Your task to perform on an android device: Empty the shopping cart on newegg. Search for "sony triple a" on newegg, select the first entry, add it to the cart, then select checkout. Image 0: 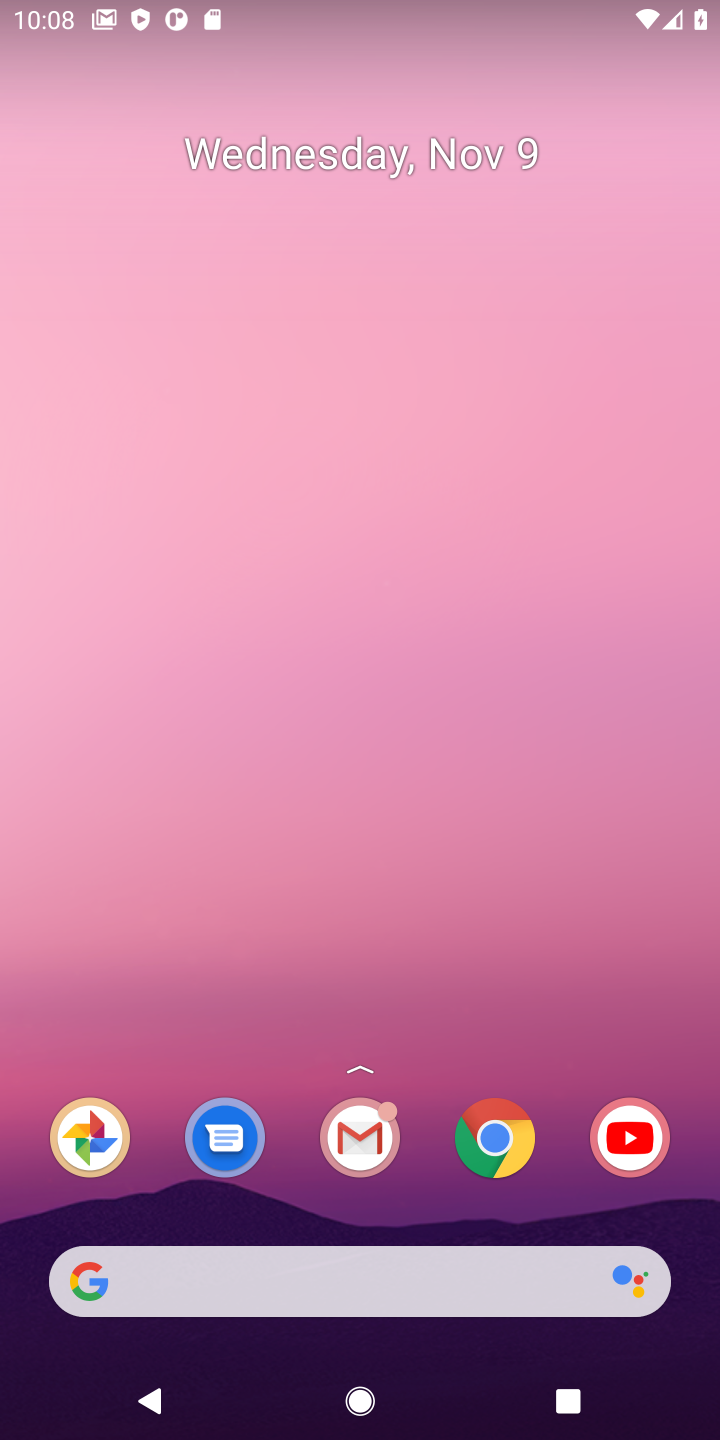
Step 0: drag from (435, 1236) to (587, 4)
Your task to perform on an android device: Empty the shopping cart on newegg. Search for "sony triple a" on newegg, select the first entry, add it to the cart, then select checkout. Image 1: 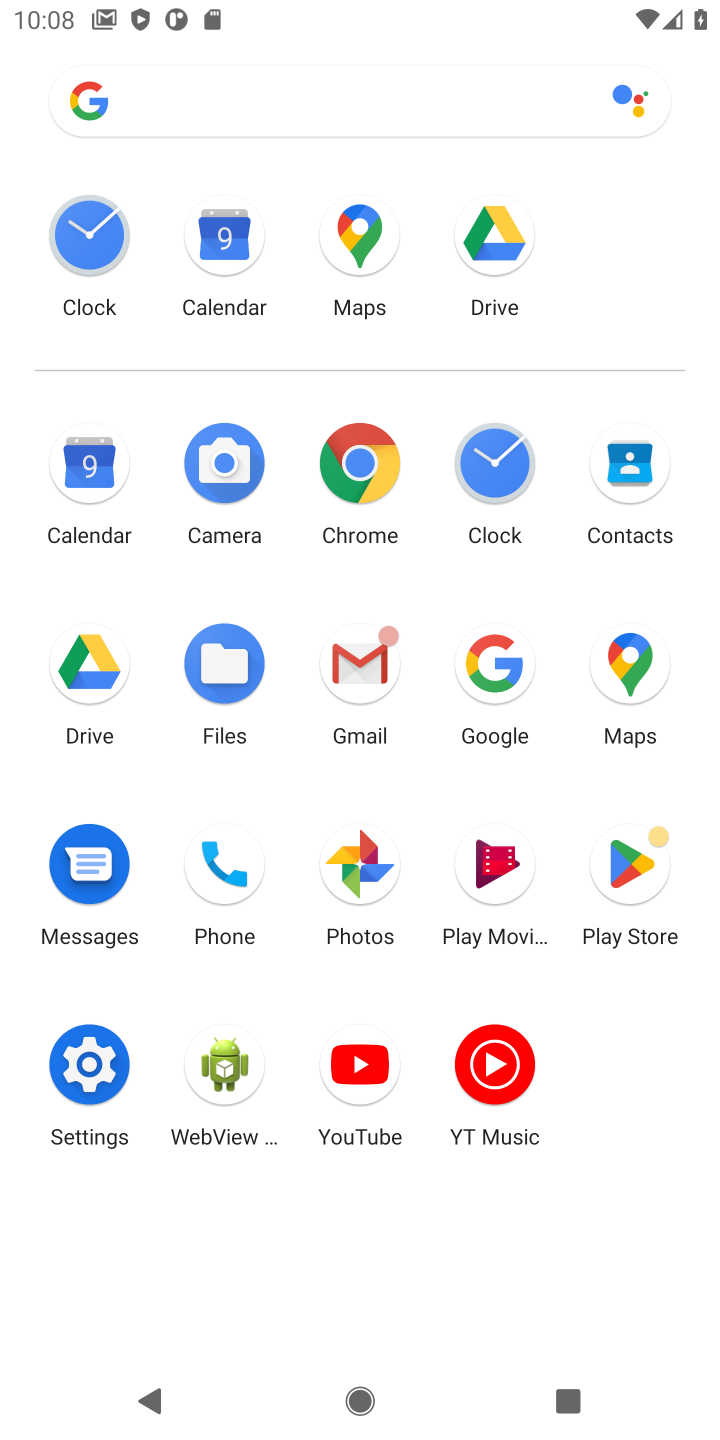
Step 1: click (357, 459)
Your task to perform on an android device: Empty the shopping cart on newegg. Search for "sony triple a" on newegg, select the first entry, add it to the cart, then select checkout. Image 2: 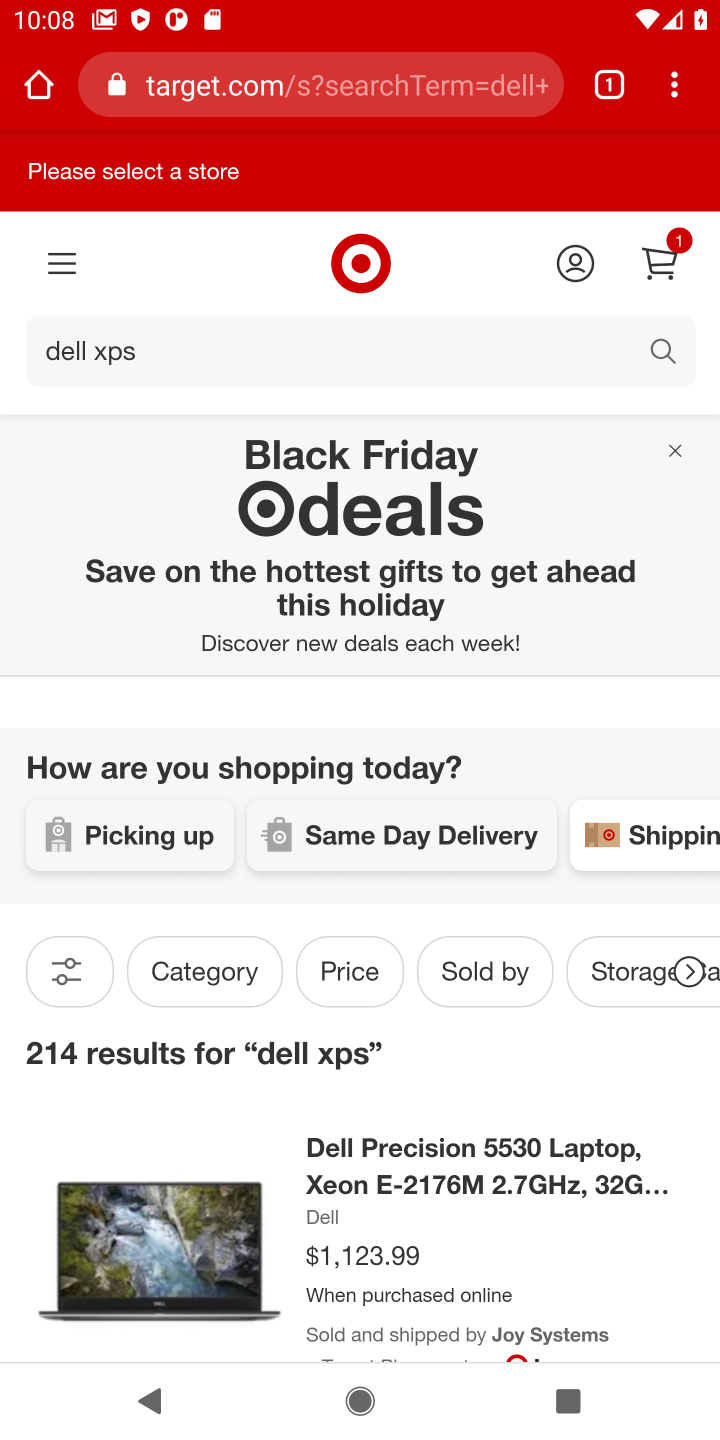
Step 2: click (291, 75)
Your task to perform on an android device: Empty the shopping cart on newegg. Search for "sony triple a" on newegg, select the first entry, add it to the cart, then select checkout. Image 3: 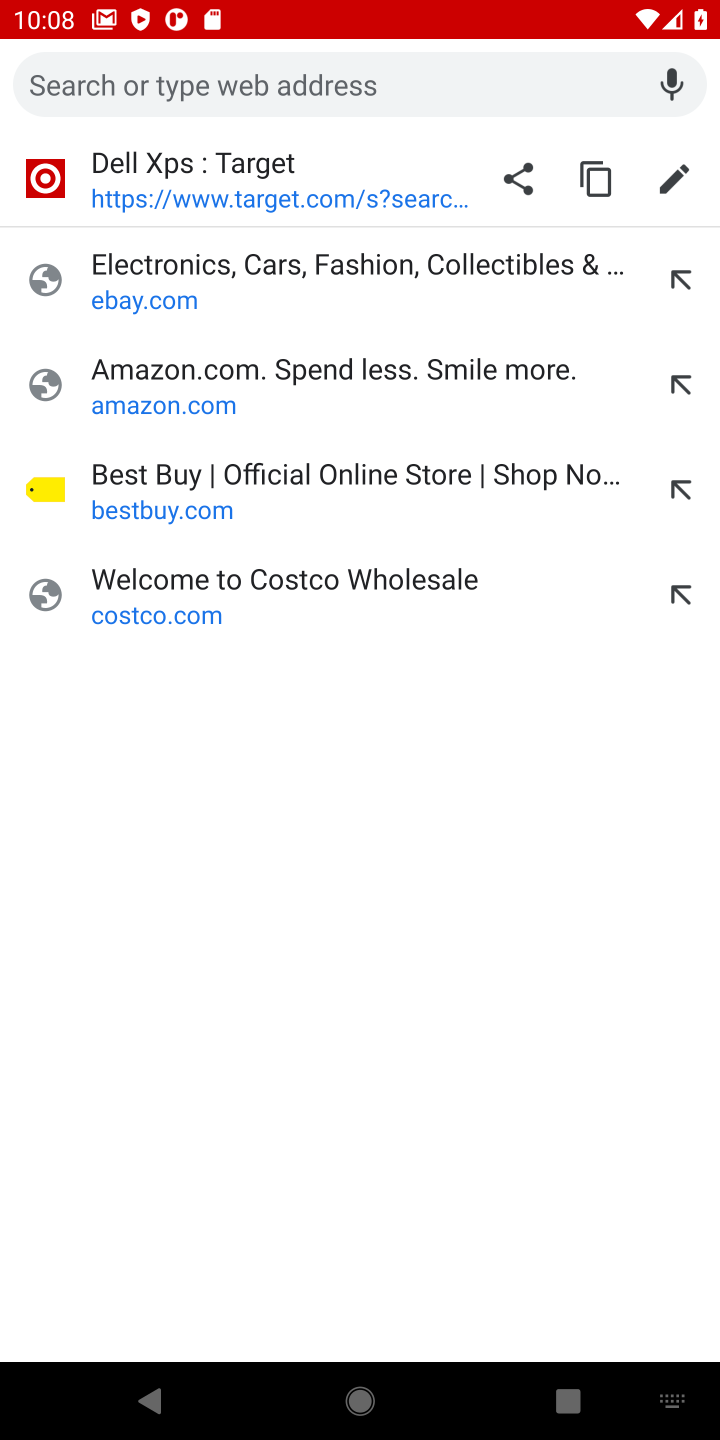
Step 3: type "newegg.com"
Your task to perform on an android device: Empty the shopping cart on newegg. Search for "sony triple a" on newegg, select the first entry, add it to the cart, then select checkout. Image 4: 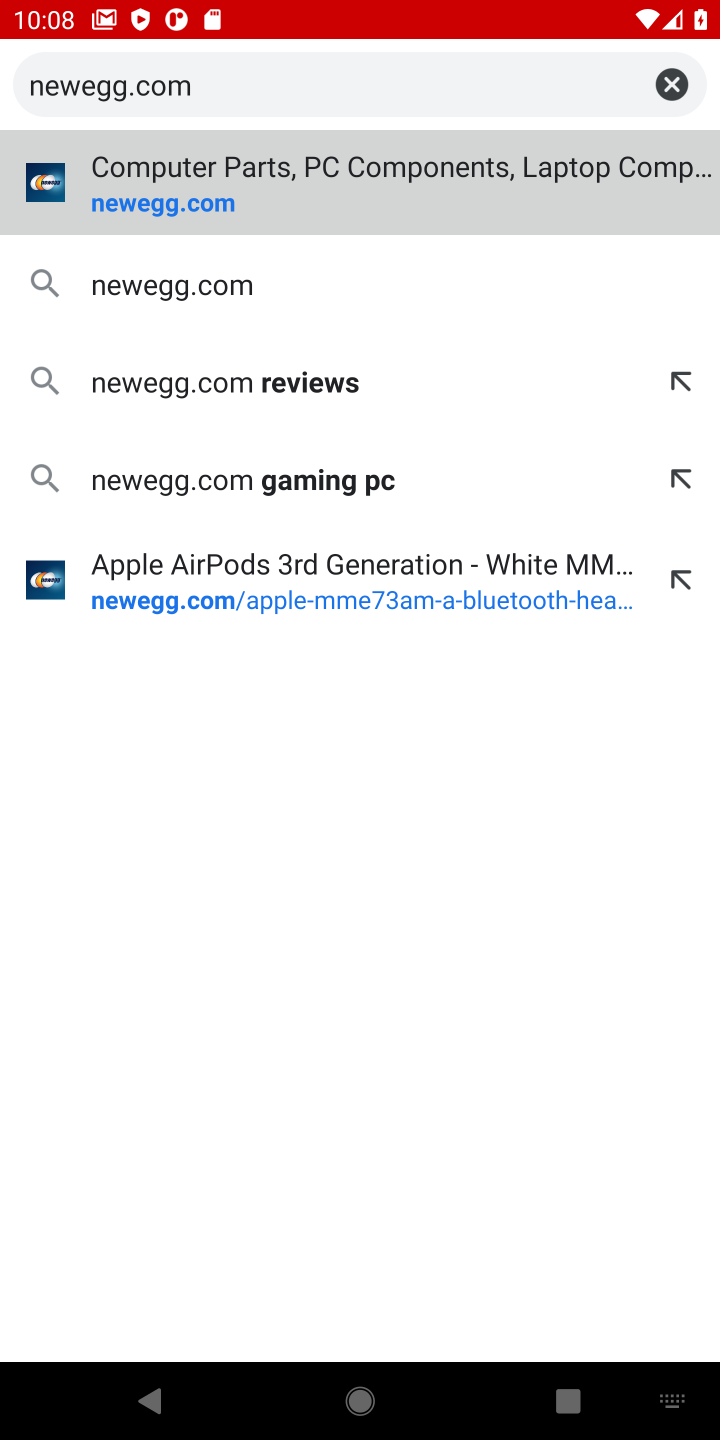
Step 4: press enter
Your task to perform on an android device: Empty the shopping cart on newegg. Search for "sony triple a" on newegg, select the first entry, add it to the cart, then select checkout. Image 5: 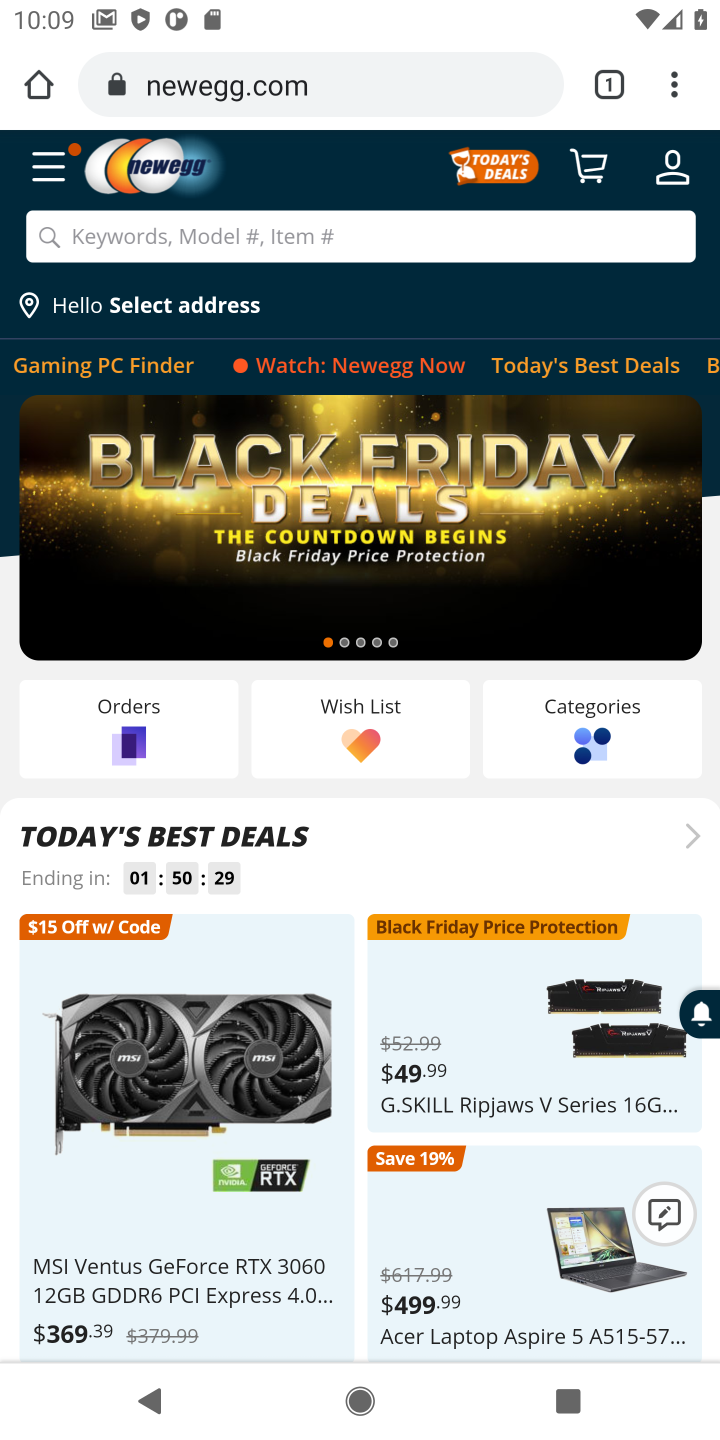
Step 5: click (592, 180)
Your task to perform on an android device: Empty the shopping cart on newegg. Search for "sony triple a" on newegg, select the first entry, add it to the cart, then select checkout. Image 6: 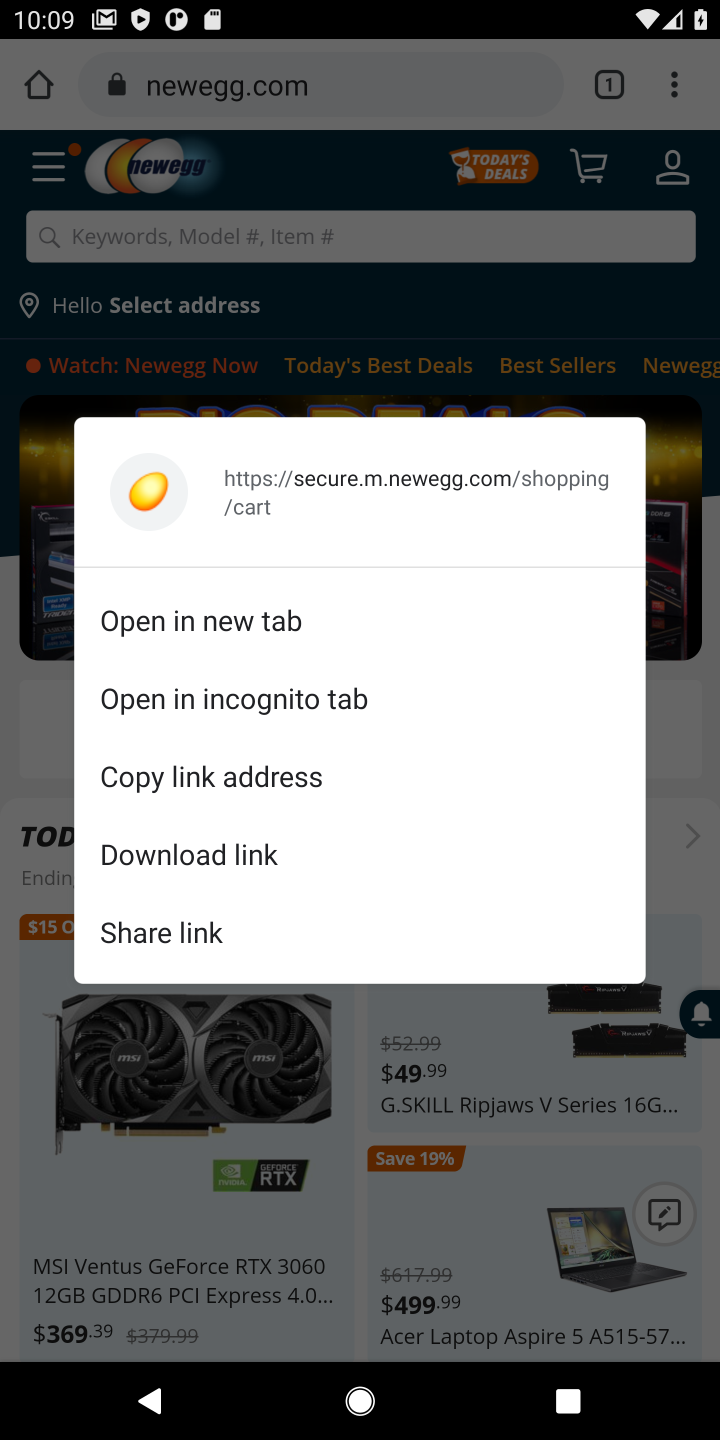
Step 6: click (593, 167)
Your task to perform on an android device: Empty the shopping cart on newegg. Search for "sony triple a" on newegg, select the first entry, add it to the cart, then select checkout. Image 7: 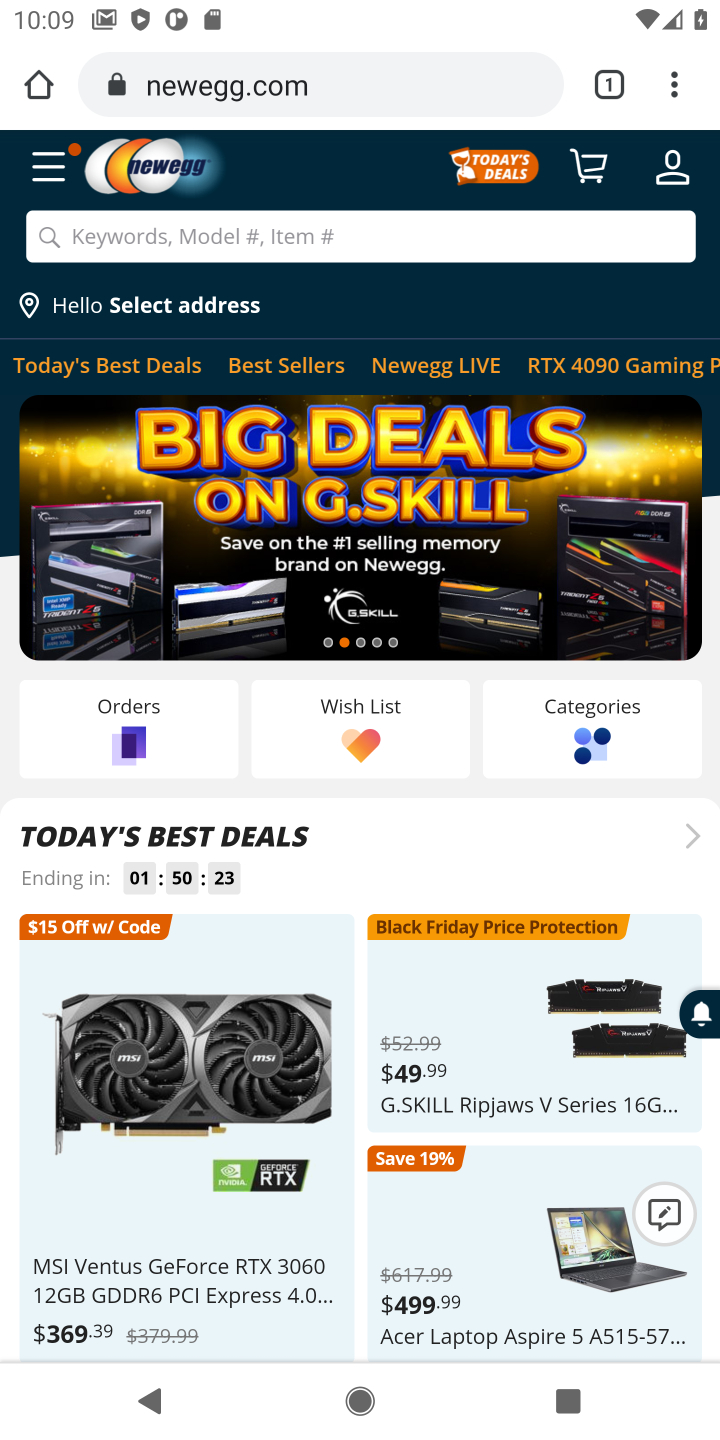
Step 7: click (593, 167)
Your task to perform on an android device: Empty the shopping cart on newegg. Search for "sony triple a" on newegg, select the first entry, add it to the cart, then select checkout. Image 8: 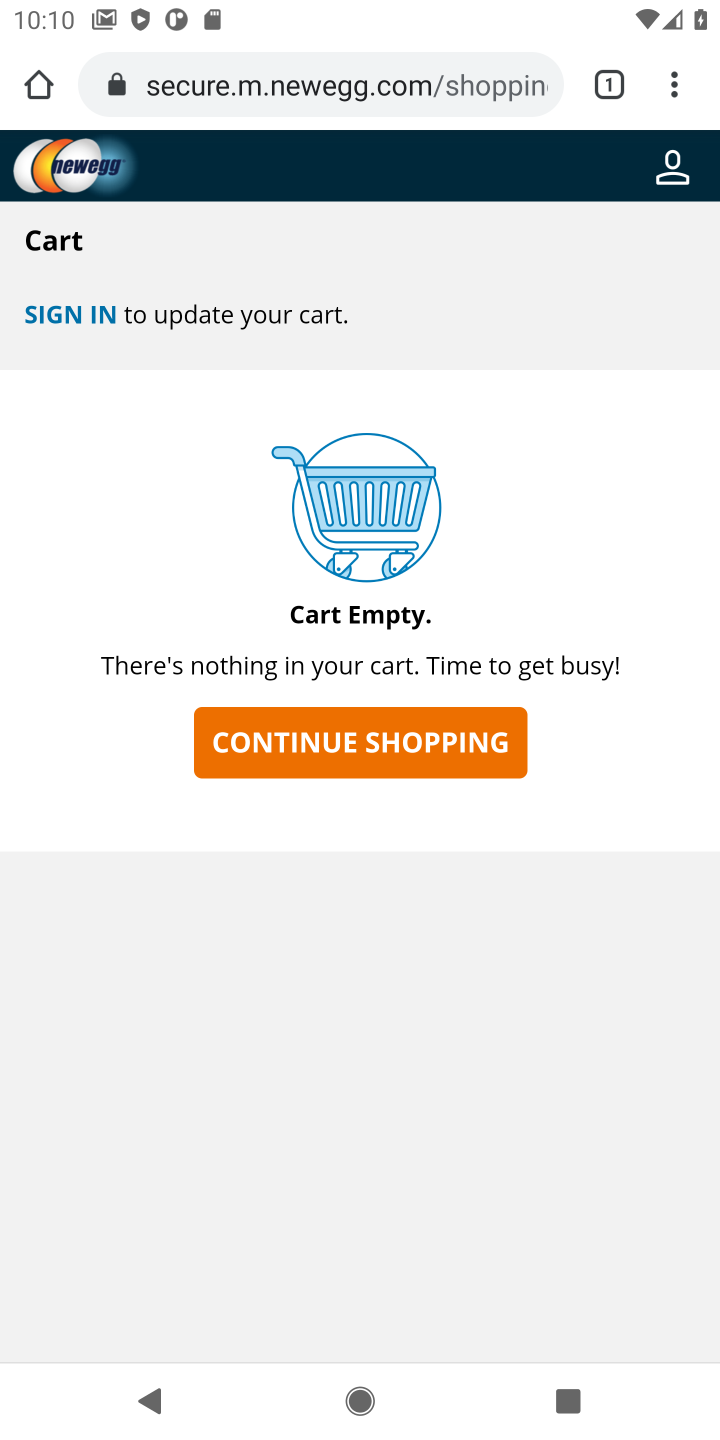
Step 8: click (372, 745)
Your task to perform on an android device: Empty the shopping cart on newegg. Search for "sony triple a" on newegg, select the first entry, add it to the cart, then select checkout. Image 9: 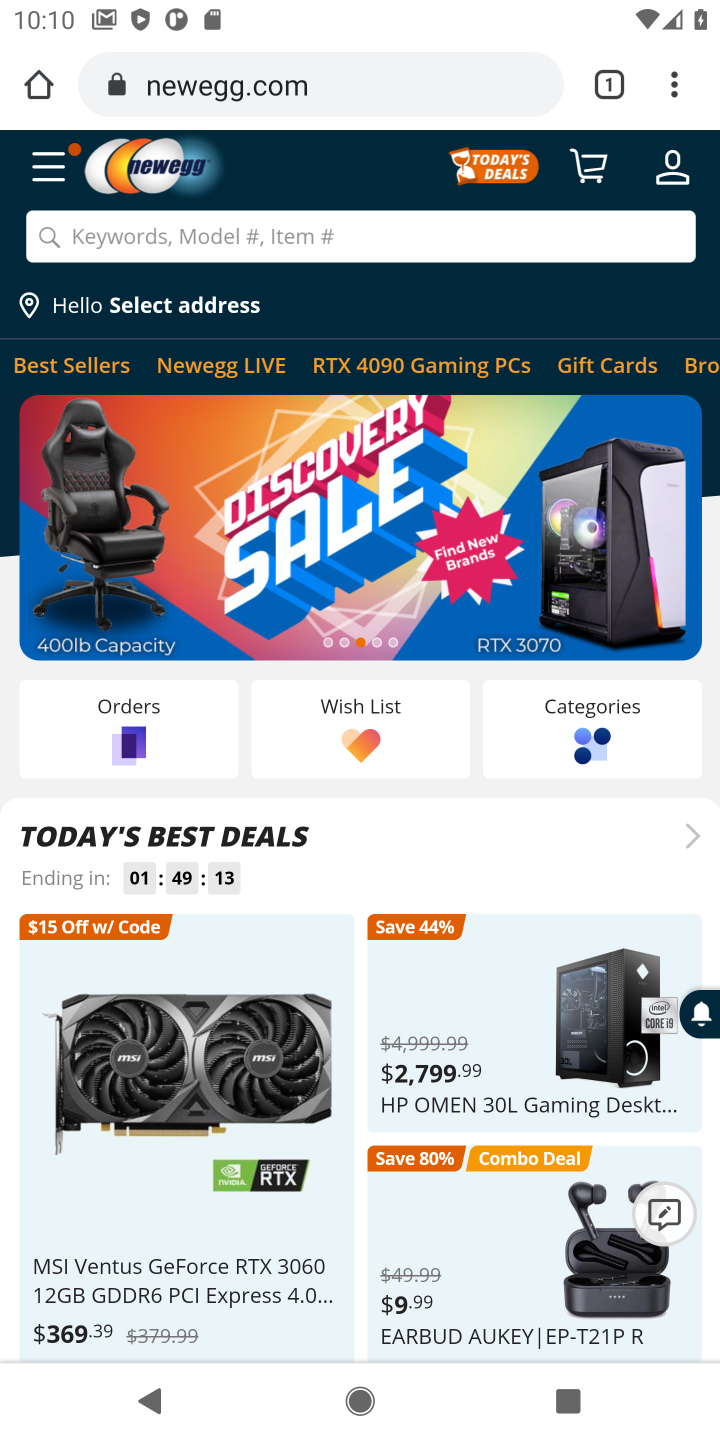
Step 9: click (607, 182)
Your task to perform on an android device: Empty the shopping cart on newegg. Search for "sony triple a" on newegg, select the first entry, add it to the cart, then select checkout. Image 10: 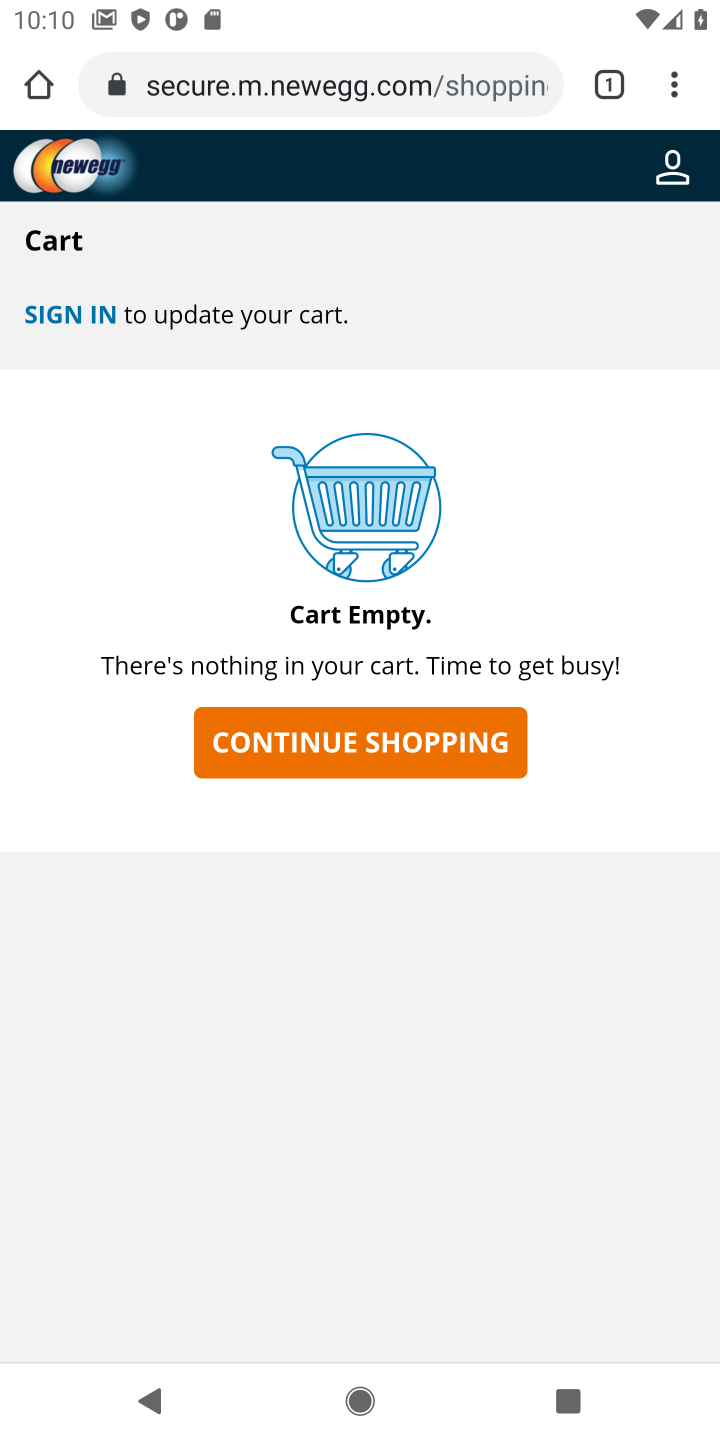
Step 10: click (395, 761)
Your task to perform on an android device: Empty the shopping cart on newegg. Search for "sony triple a" on newegg, select the first entry, add it to the cart, then select checkout. Image 11: 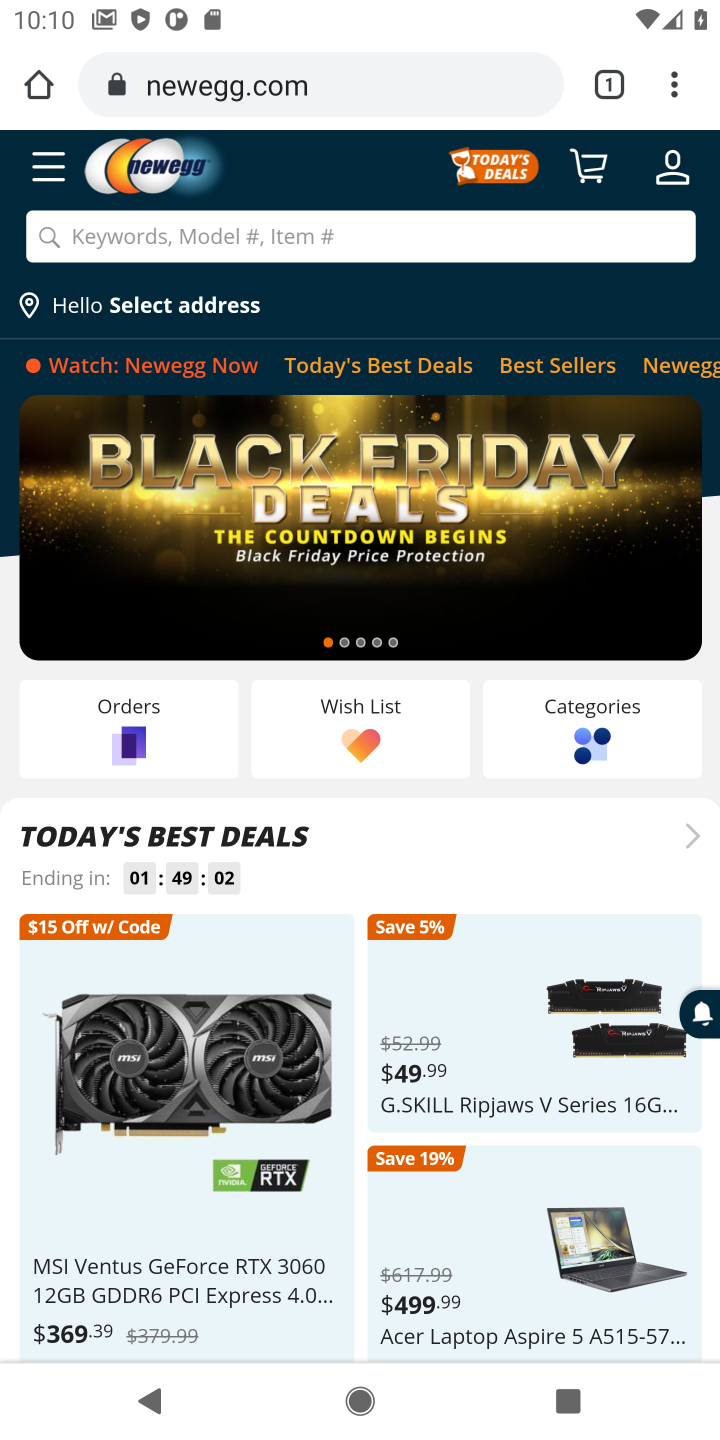
Step 11: click (387, 224)
Your task to perform on an android device: Empty the shopping cart on newegg. Search for "sony triple a" on newegg, select the first entry, add it to the cart, then select checkout. Image 12: 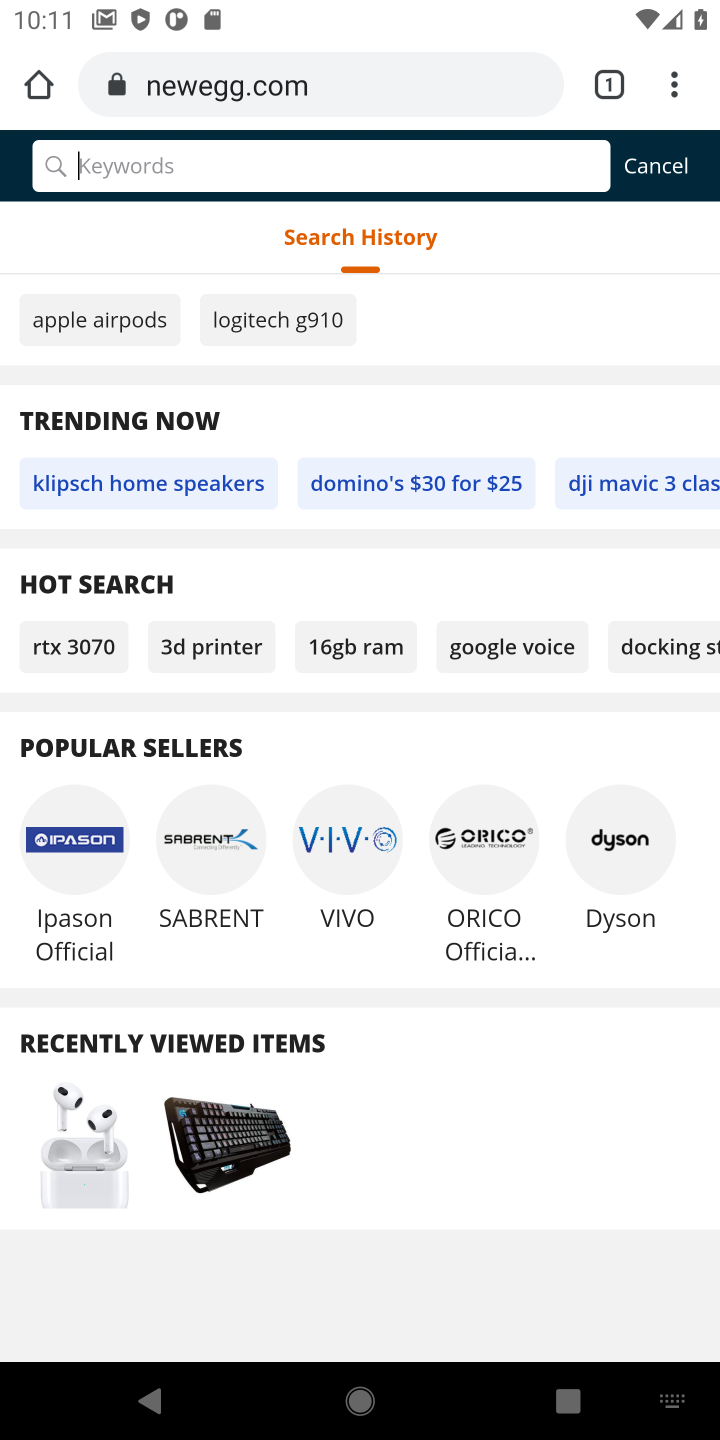
Step 12: click (458, 224)
Your task to perform on an android device: Empty the shopping cart on newegg. Search for "sony triple a" on newegg, select the first entry, add it to the cart, then select checkout. Image 13: 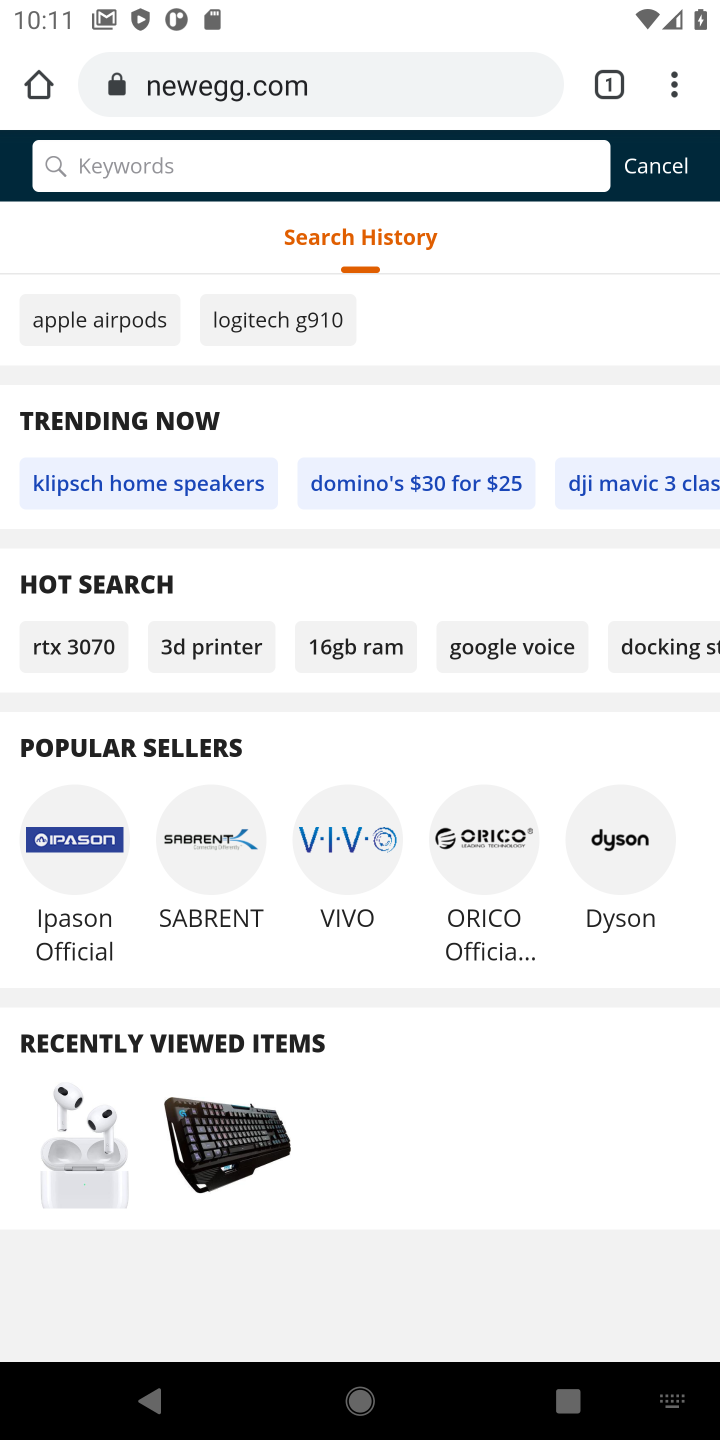
Step 13: click (467, 186)
Your task to perform on an android device: Empty the shopping cart on newegg. Search for "sony triple a" on newegg, select the first entry, add it to the cart, then select checkout. Image 14: 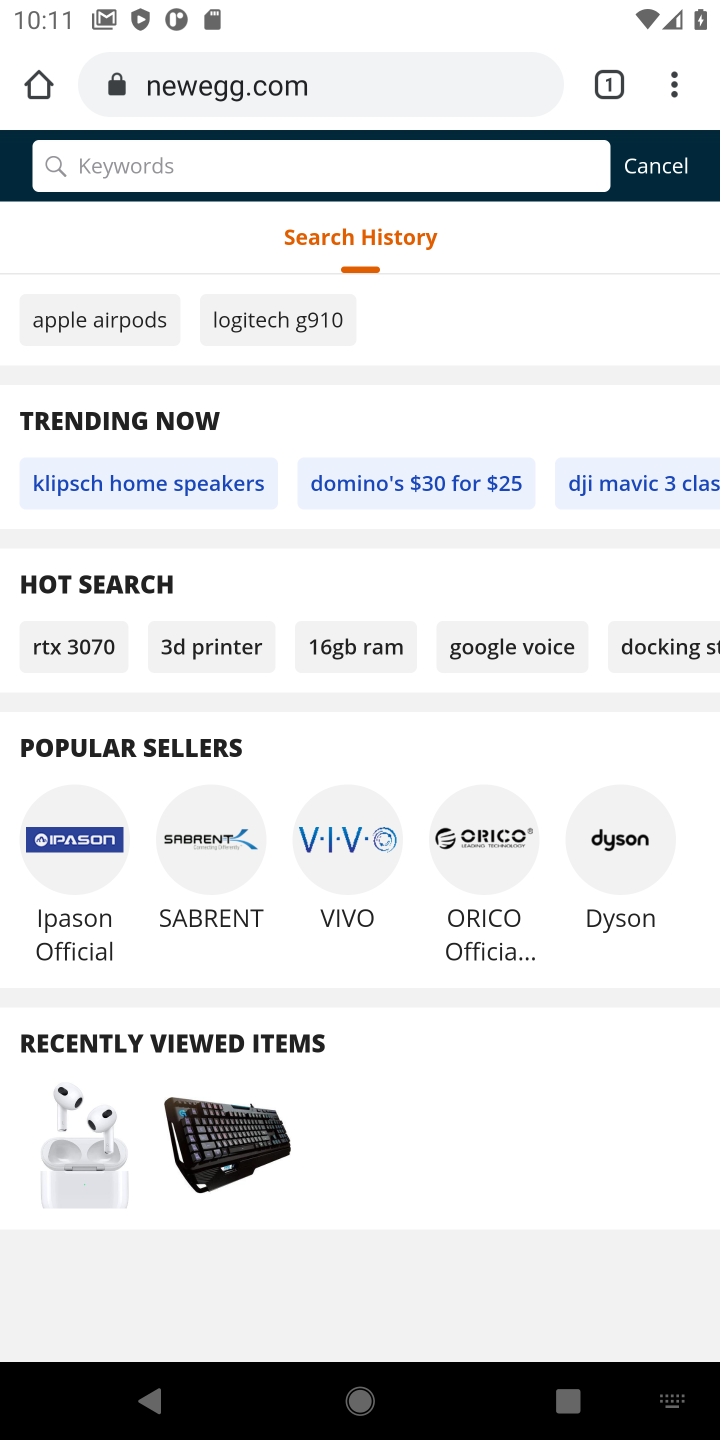
Step 14: click (499, 182)
Your task to perform on an android device: Empty the shopping cart on newegg. Search for "sony triple a" on newegg, select the first entry, add it to the cart, then select checkout. Image 15: 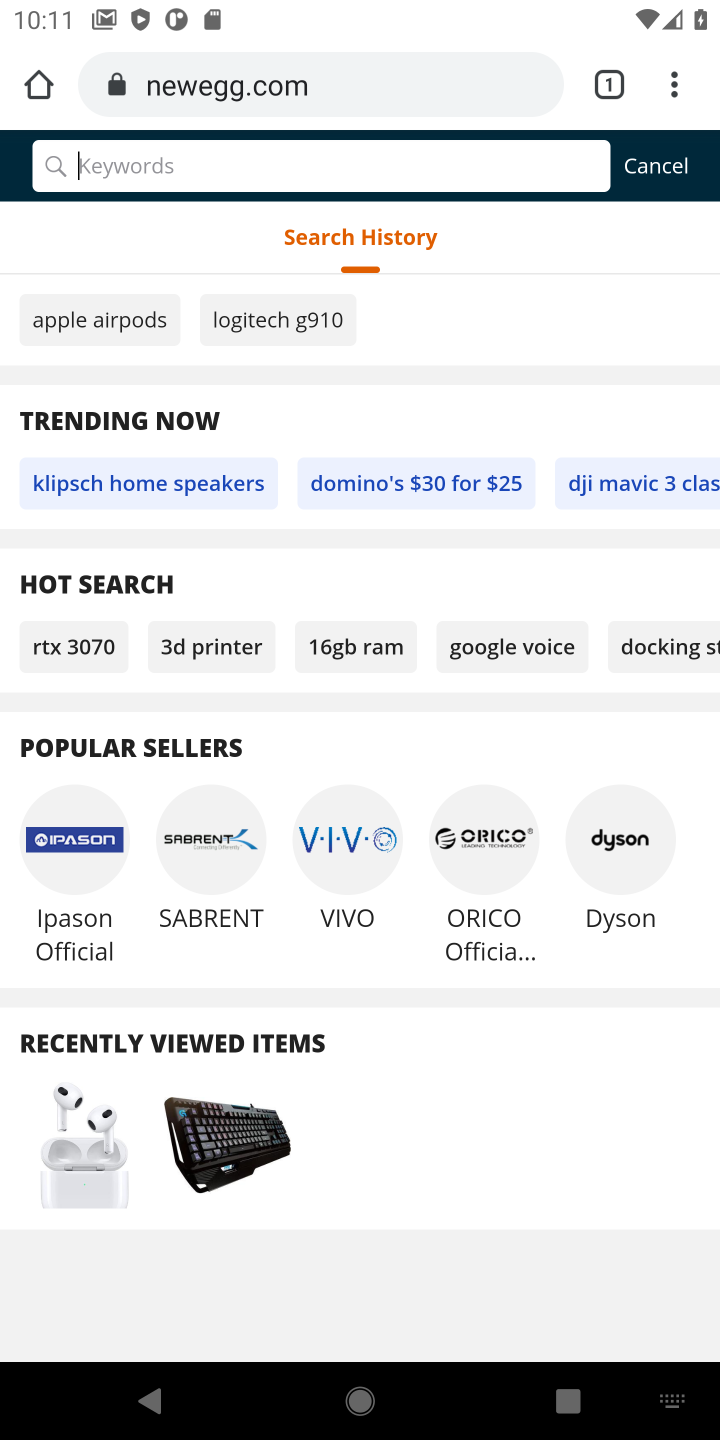
Step 15: type "sony triple a"
Your task to perform on an android device: Empty the shopping cart on newegg. Search for "sony triple a" on newegg, select the first entry, add it to the cart, then select checkout. Image 16: 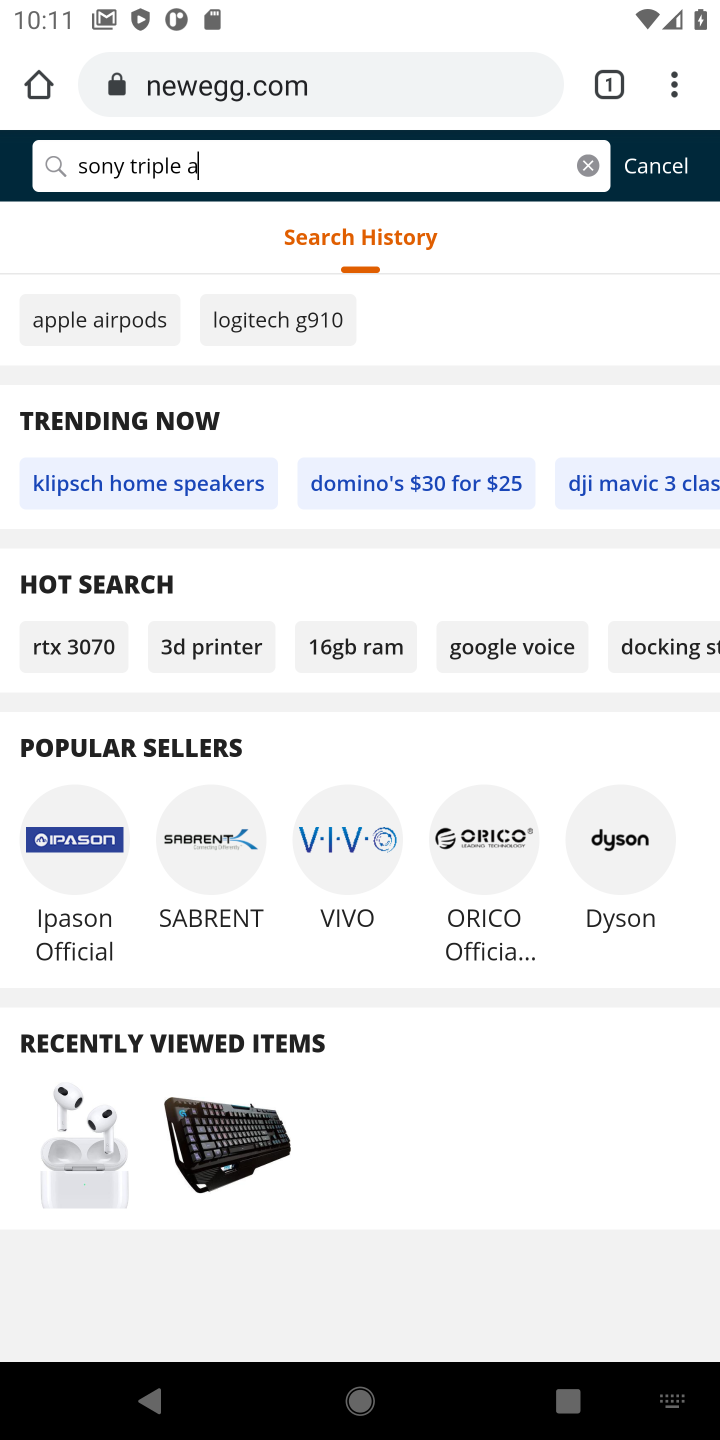
Step 16: press enter
Your task to perform on an android device: Empty the shopping cart on newegg. Search for "sony triple a" on newegg, select the first entry, add it to the cart, then select checkout. Image 17: 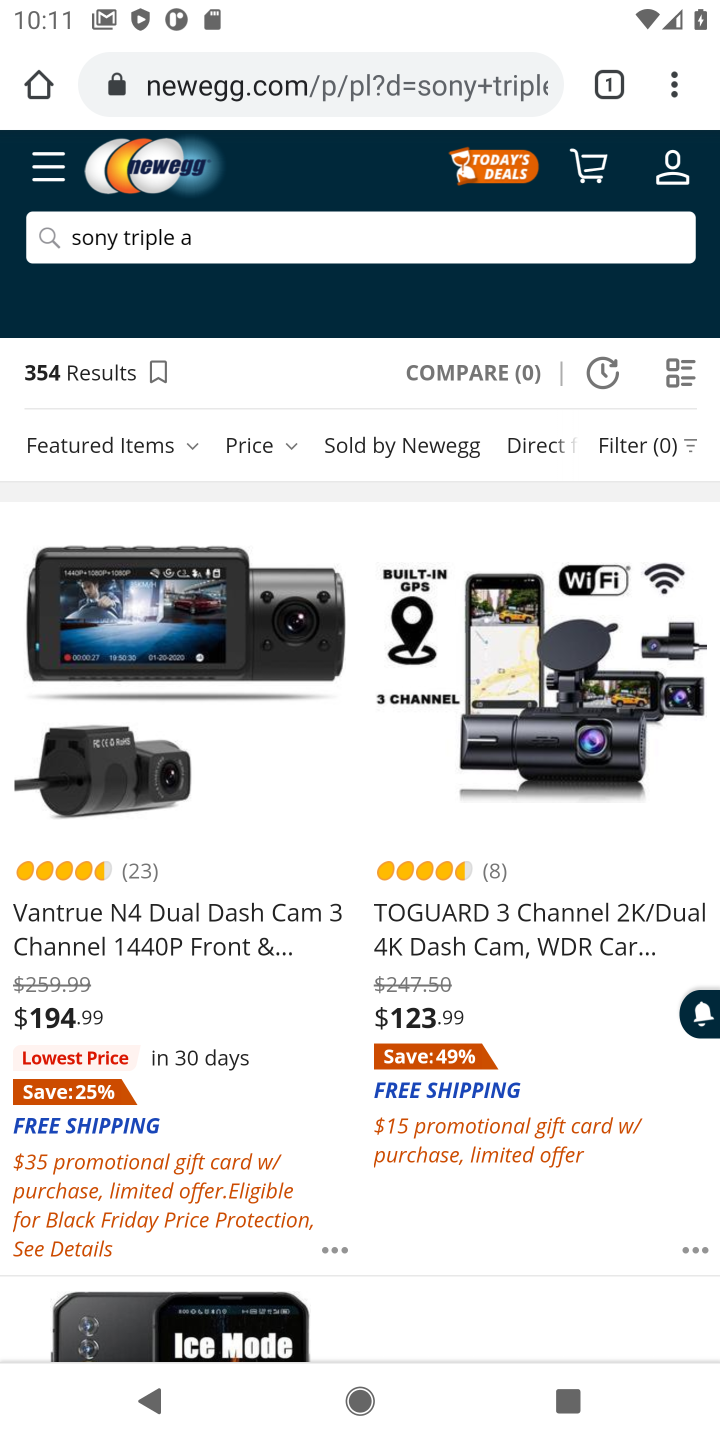
Step 17: task complete